Your task to perform on an android device: change text size in settings app Image 0: 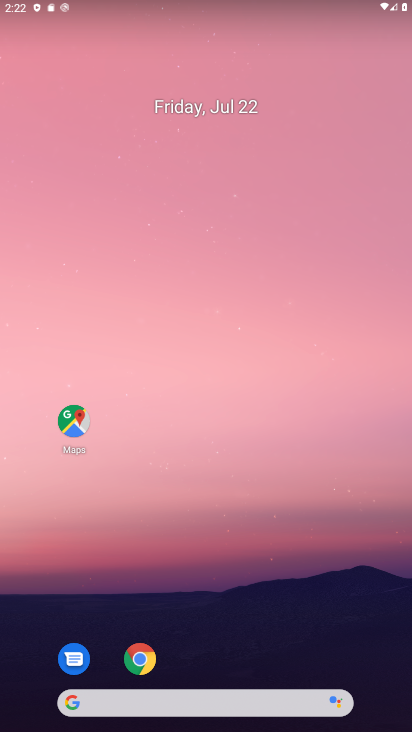
Step 0: drag from (239, 636) to (212, 131)
Your task to perform on an android device: change text size in settings app Image 1: 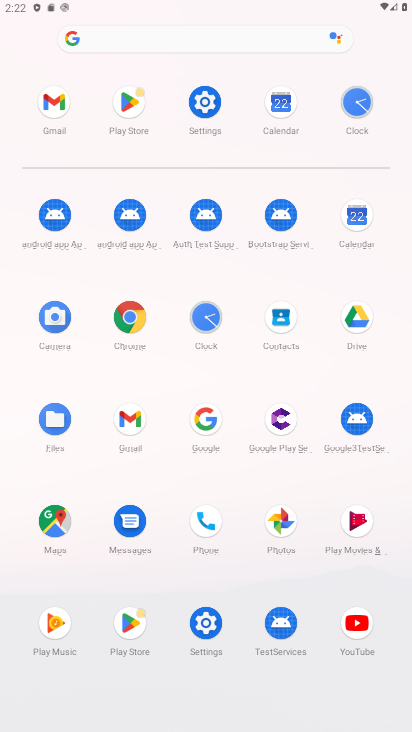
Step 1: click (213, 121)
Your task to perform on an android device: change text size in settings app Image 2: 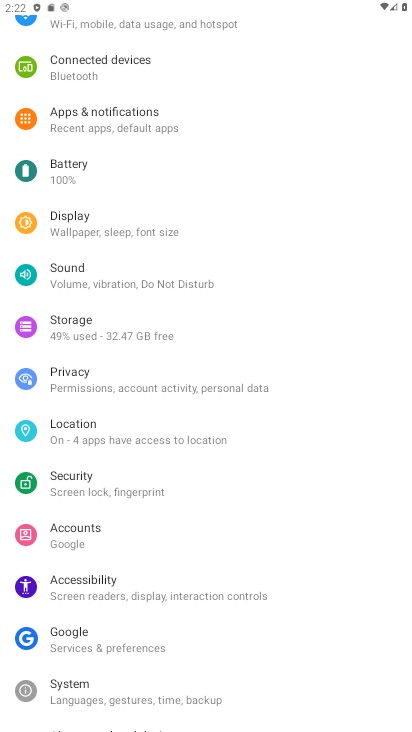
Step 2: task complete